Your task to perform on an android device: add a contact in the contacts app Image 0: 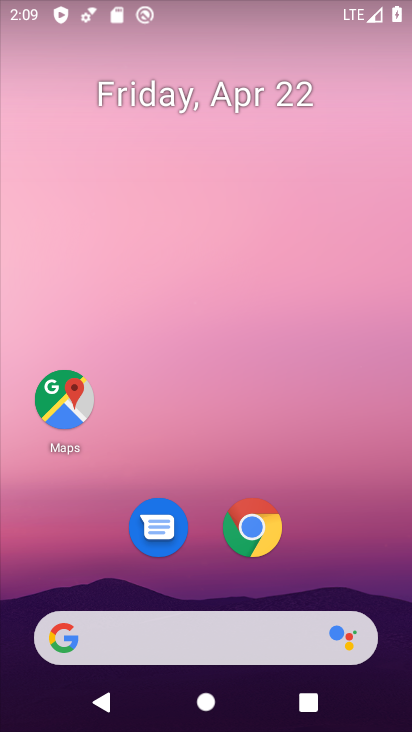
Step 0: press home button
Your task to perform on an android device: add a contact in the contacts app Image 1: 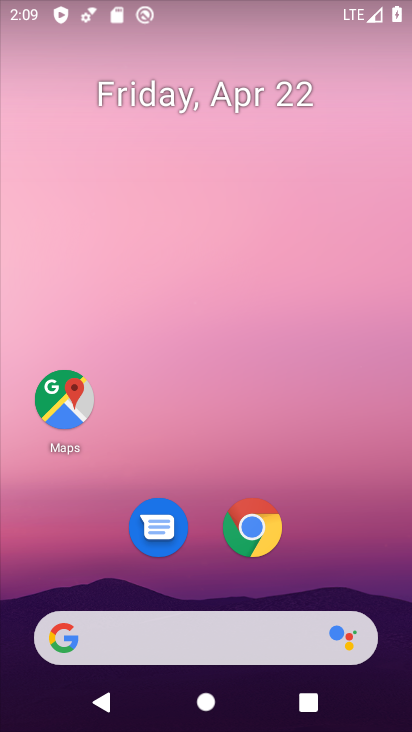
Step 1: drag from (324, 551) to (168, 23)
Your task to perform on an android device: add a contact in the contacts app Image 2: 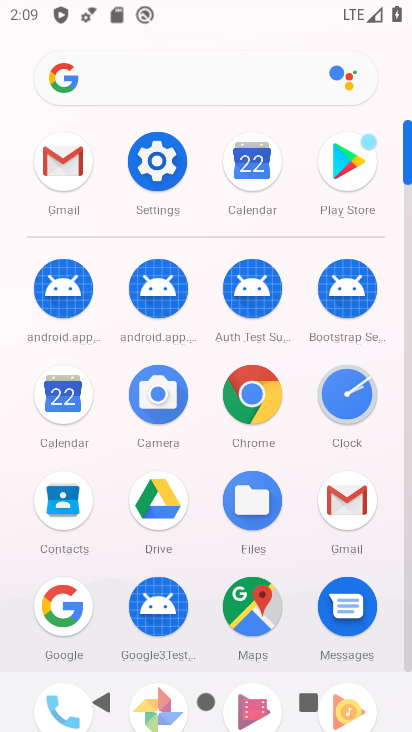
Step 2: click (64, 488)
Your task to perform on an android device: add a contact in the contacts app Image 3: 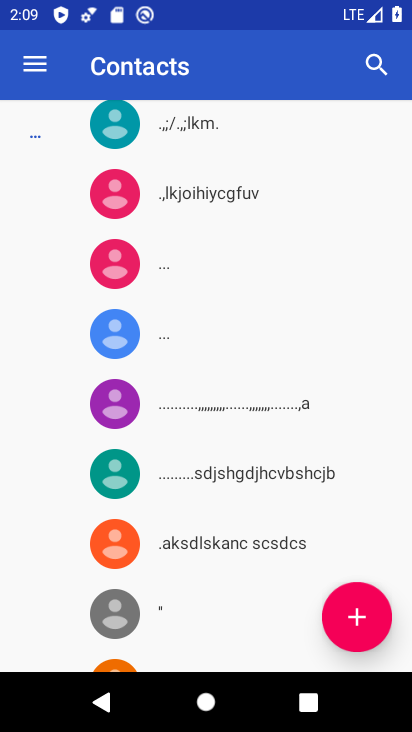
Step 3: drag from (295, 131) to (238, 600)
Your task to perform on an android device: add a contact in the contacts app Image 4: 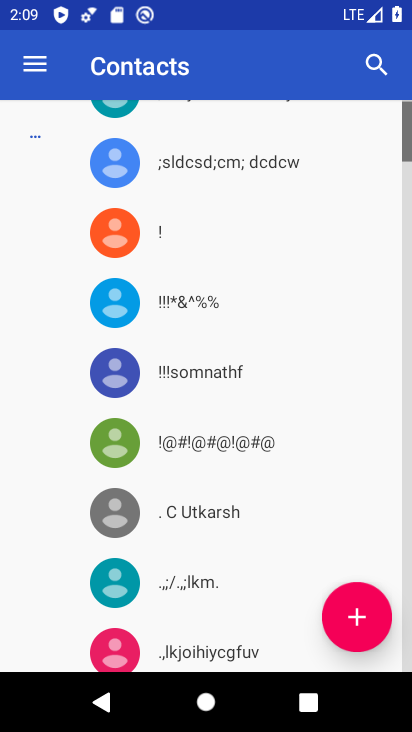
Step 4: drag from (240, 188) to (211, 600)
Your task to perform on an android device: add a contact in the contacts app Image 5: 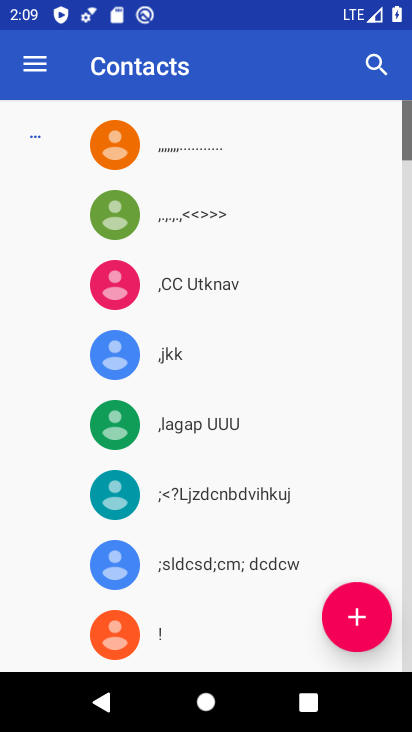
Step 5: drag from (201, 154) to (193, 597)
Your task to perform on an android device: add a contact in the contacts app Image 6: 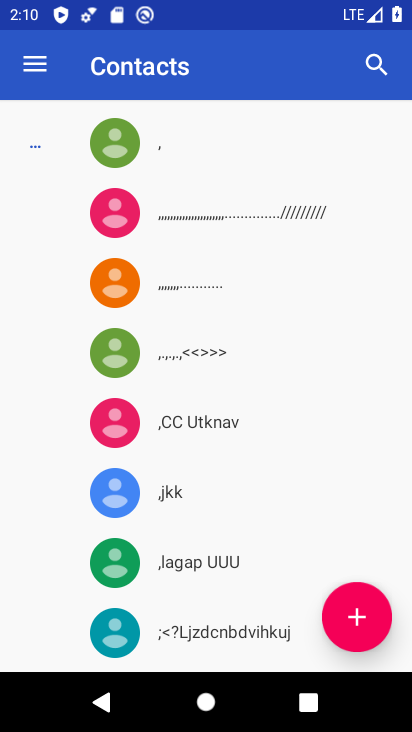
Step 6: click (359, 613)
Your task to perform on an android device: add a contact in the contacts app Image 7: 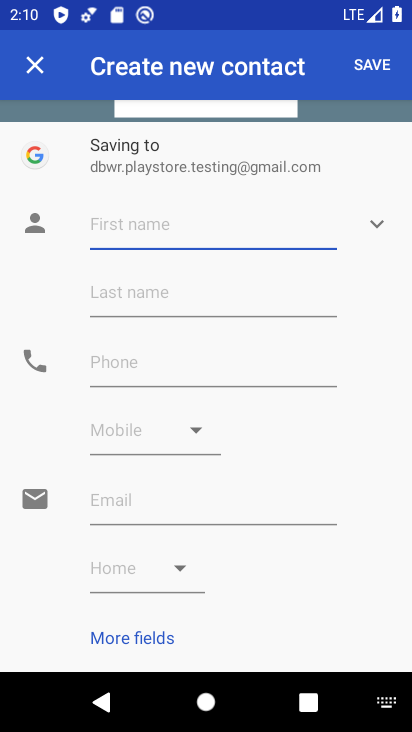
Step 7: click (107, 224)
Your task to perform on an android device: add a contact in the contacts app Image 8: 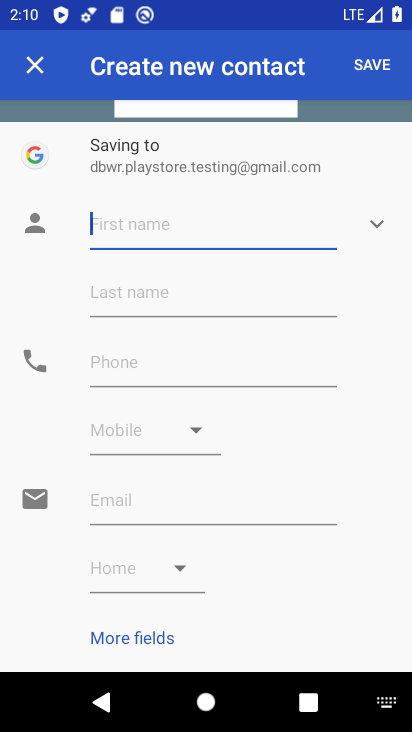
Step 8: type "prince"
Your task to perform on an android device: add a contact in the contacts app Image 9: 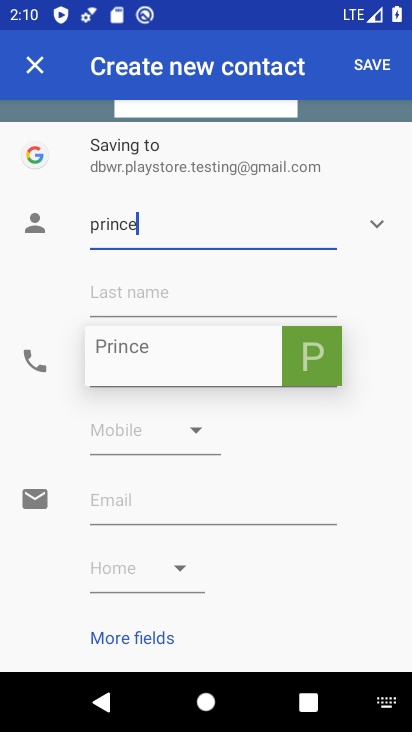
Step 9: type " narula"
Your task to perform on an android device: add a contact in the contacts app Image 10: 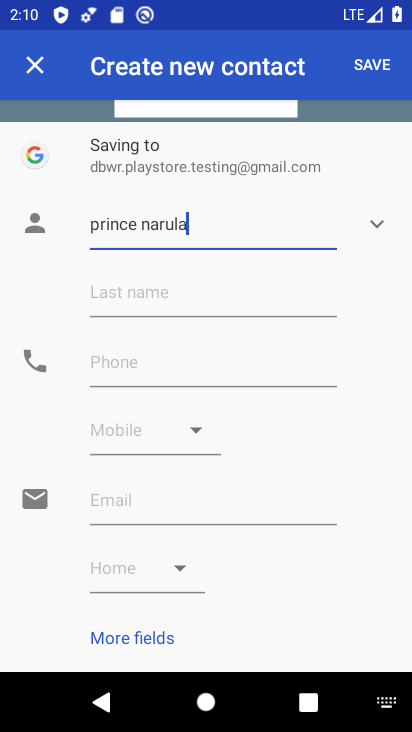
Step 10: click (115, 364)
Your task to perform on an android device: add a contact in the contacts app Image 11: 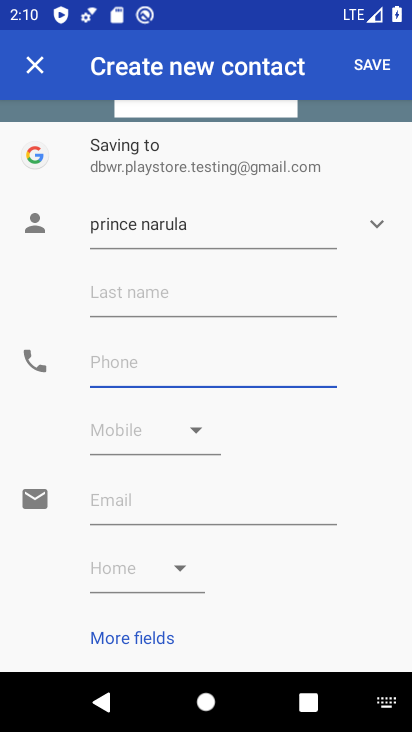
Step 11: type "97387632675"
Your task to perform on an android device: add a contact in the contacts app Image 12: 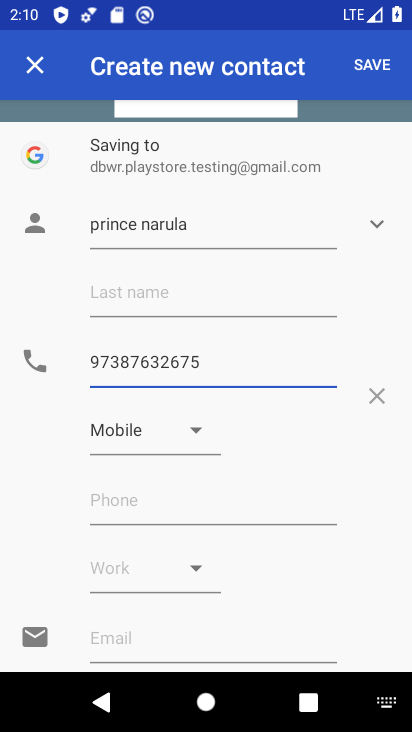
Step 12: click (370, 63)
Your task to perform on an android device: add a contact in the contacts app Image 13: 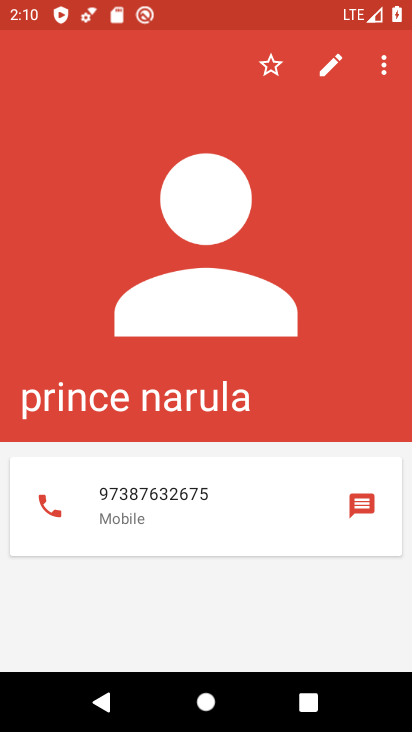
Step 13: task complete